Your task to perform on an android device: Open Wikipedia Image 0: 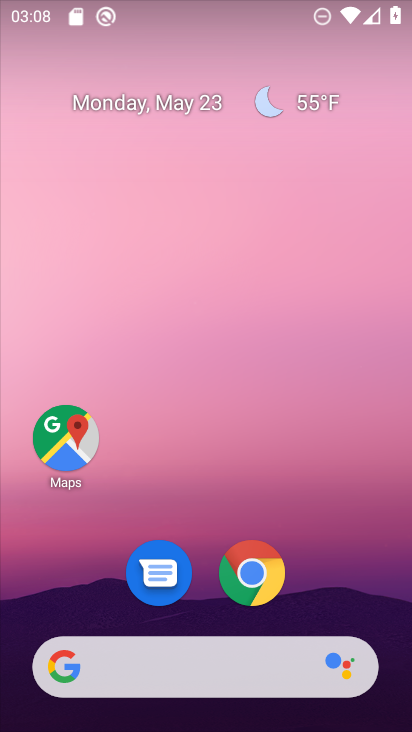
Step 0: click (249, 570)
Your task to perform on an android device: Open Wikipedia Image 1: 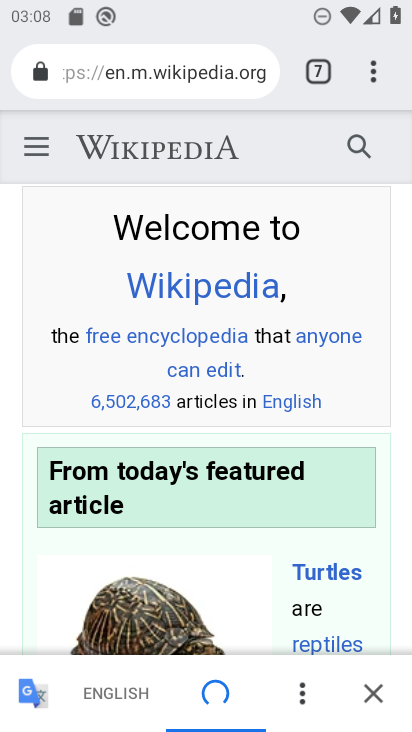
Step 1: task complete